Your task to perform on an android device: Go to wifi settings Image 0: 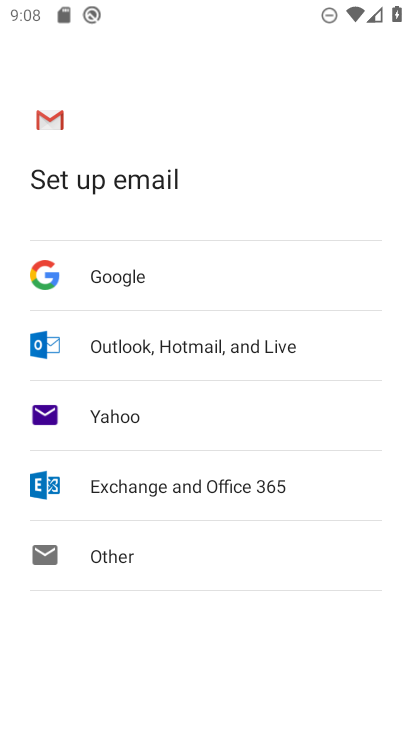
Step 0: press home button
Your task to perform on an android device: Go to wifi settings Image 1: 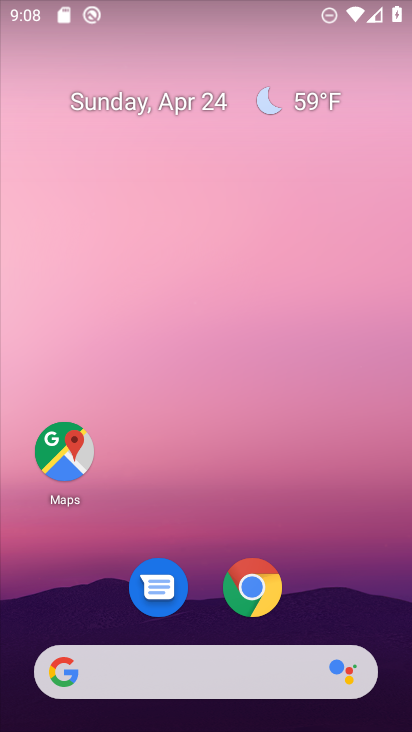
Step 1: drag from (191, 514) to (213, 39)
Your task to perform on an android device: Go to wifi settings Image 2: 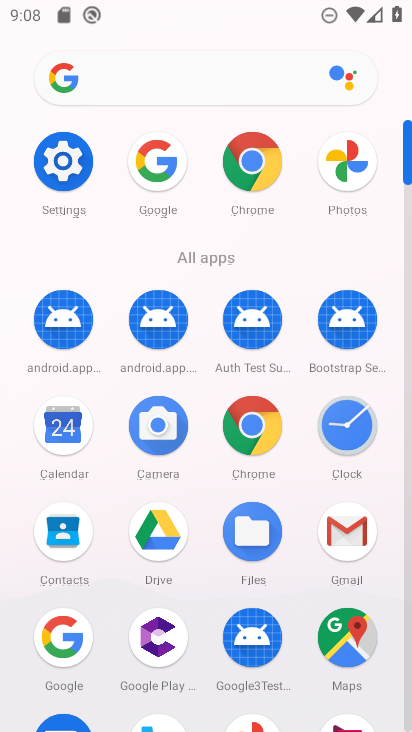
Step 2: click (65, 164)
Your task to perform on an android device: Go to wifi settings Image 3: 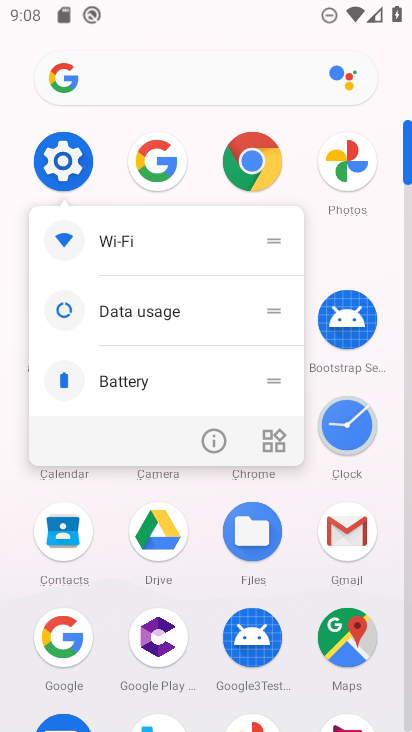
Step 3: click (65, 164)
Your task to perform on an android device: Go to wifi settings Image 4: 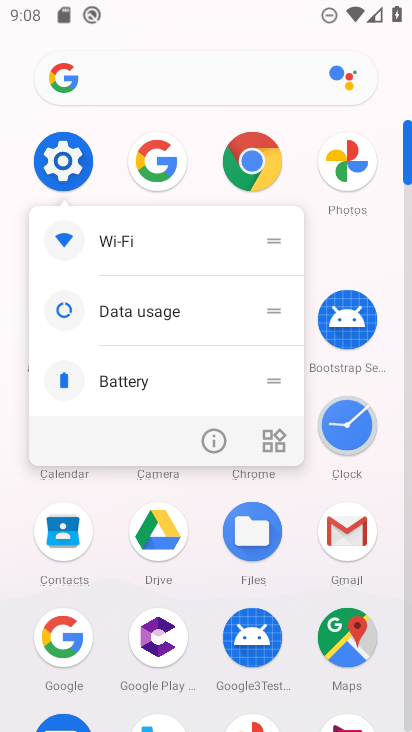
Step 4: click (65, 164)
Your task to perform on an android device: Go to wifi settings Image 5: 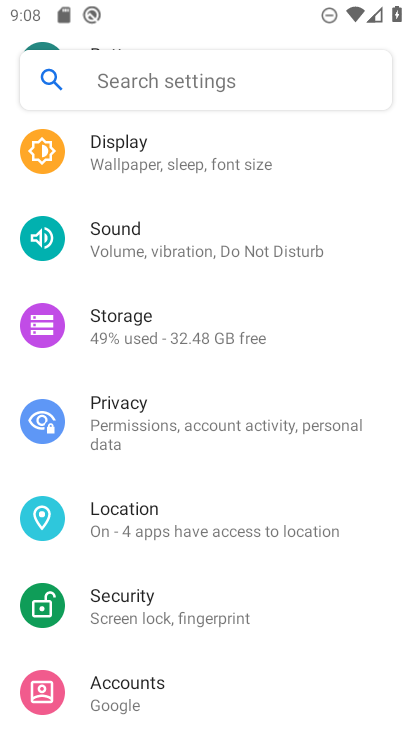
Step 5: drag from (220, 210) to (216, 292)
Your task to perform on an android device: Go to wifi settings Image 6: 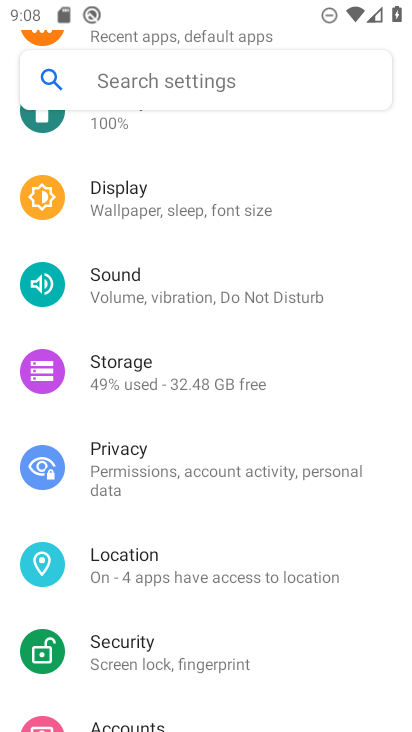
Step 6: drag from (201, 171) to (216, 282)
Your task to perform on an android device: Go to wifi settings Image 7: 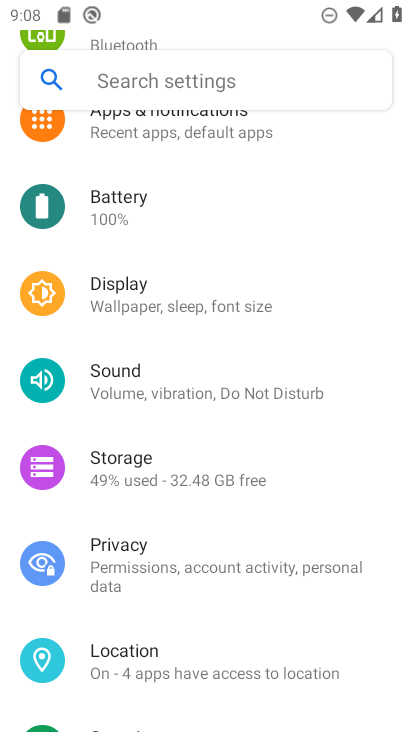
Step 7: drag from (202, 233) to (242, 322)
Your task to perform on an android device: Go to wifi settings Image 8: 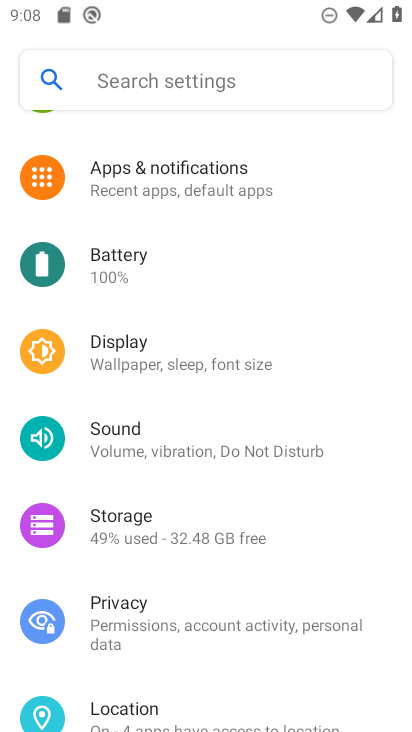
Step 8: drag from (211, 230) to (235, 321)
Your task to perform on an android device: Go to wifi settings Image 9: 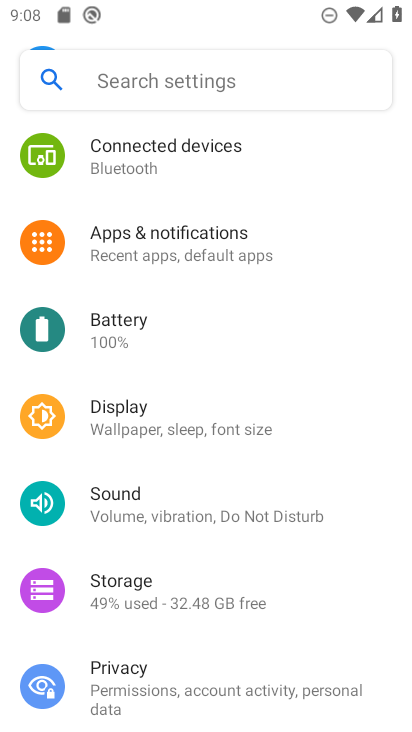
Step 9: drag from (216, 203) to (248, 314)
Your task to perform on an android device: Go to wifi settings Image 10: 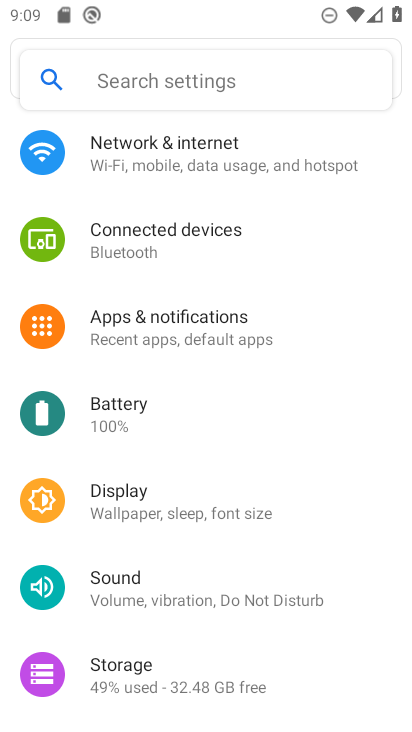
Step 10: drag from (220, 195) to (250, 305)
Your task to perform on an android device: Go to wifi settings Image 11: 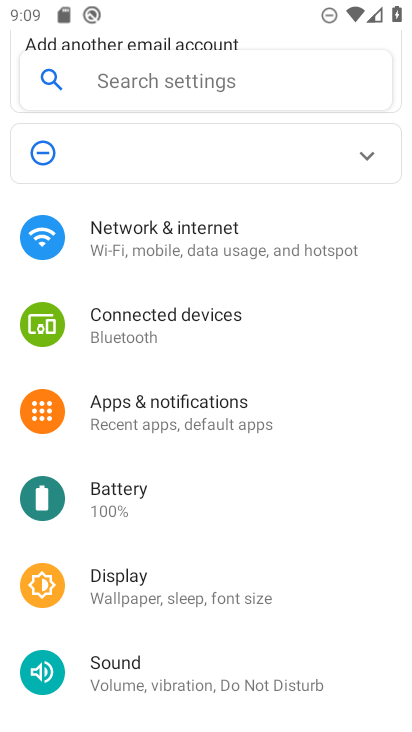
Step 11: click (204, 223)
Your task to perform on an android device: Go to wifi settings Image 12: 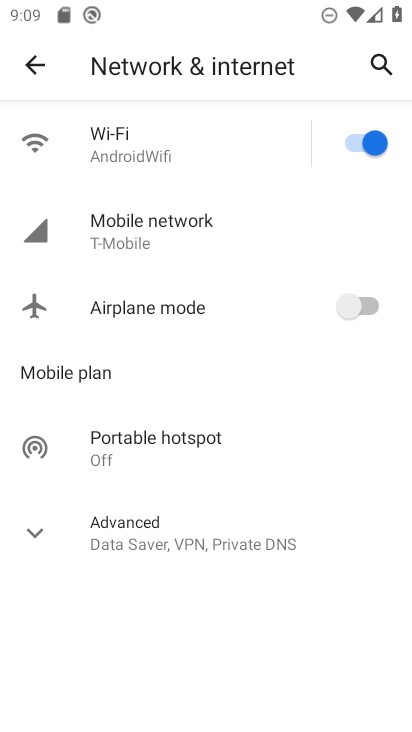
Step 12: click (130, 154)
Your task to perform on an android device: Go to wifi settings Image 13: 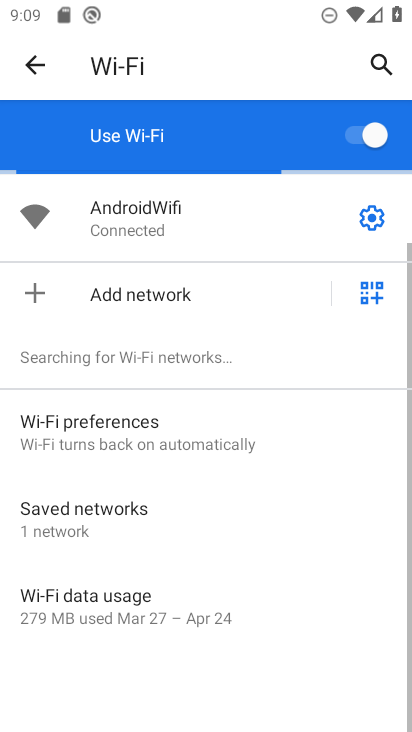
Step 13: click (372, 224)
Your task to perform on an android device: Go to wifi settings Image 14: 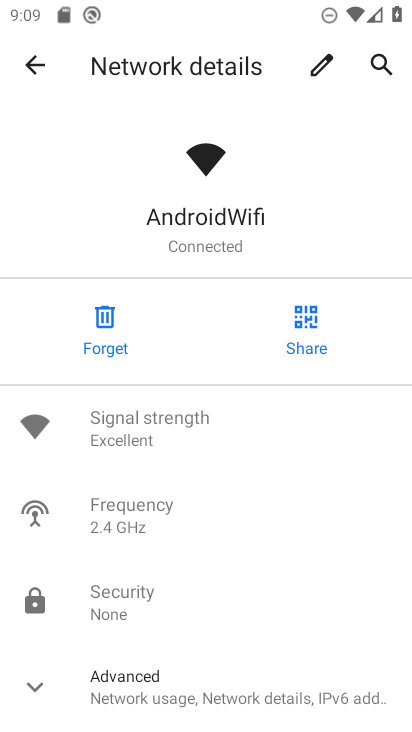
Step 14: task complete